Your task to perform on an android device: Open privacy settings Image 0: 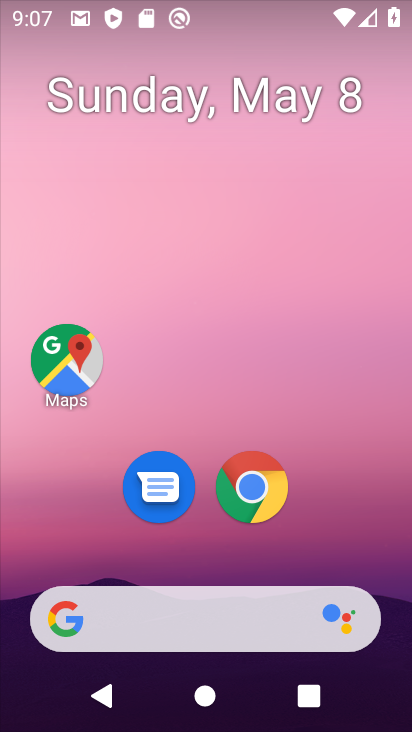
Step 0: drag from (377, 574) to (297, 1)
Your task to perform on an android device: Open privacy settings Image 1: 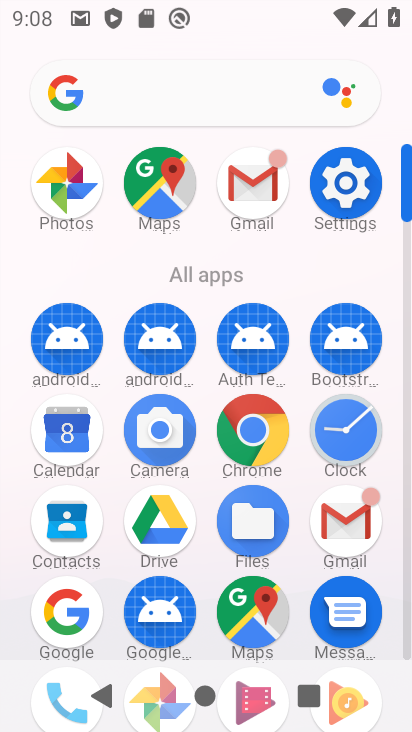
Step 1: click (355, 194)
Your task to perform on an android device: Open privacy settings Image 2: 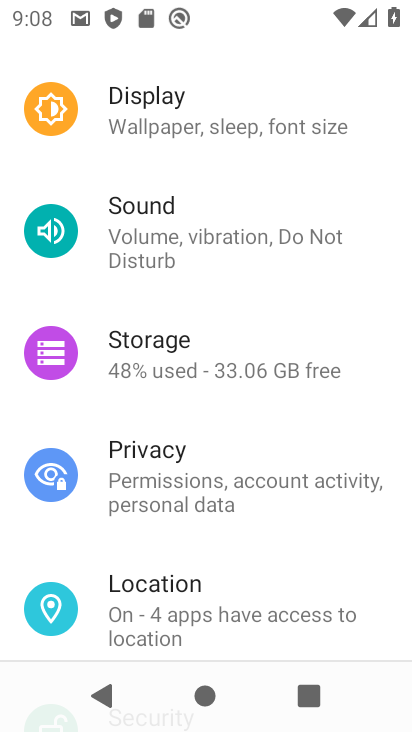
Step 2: click (195, 482)
Your task to perform on an android device: Open privacy settings Image 3: 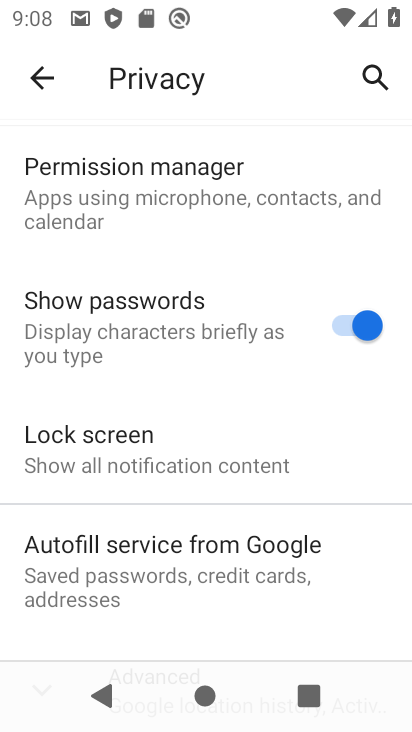
Step 3: task complete